Your task to perform on an android device: change alarm snooze length Image 0: 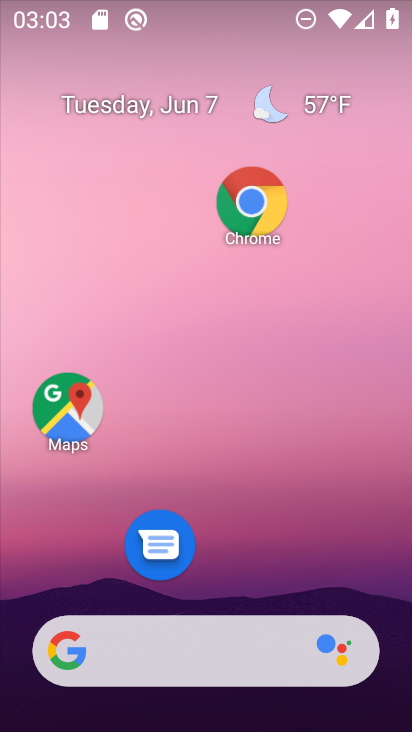
Step 0: drag from (271, 551) to (292, 267)
Your task to perform on an android device: change alarm snooze length Image 1: 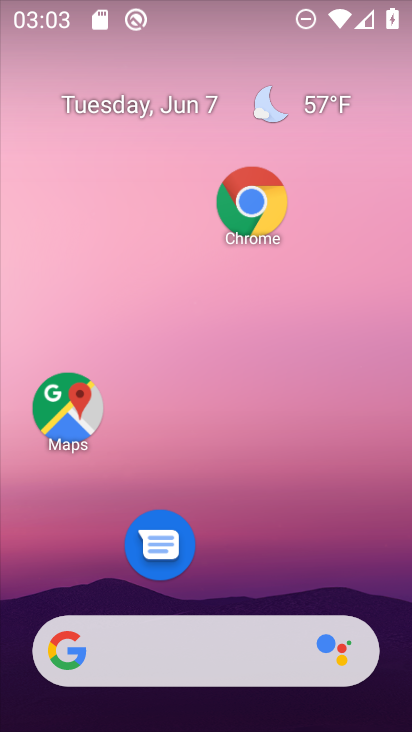
Step 1: drag from (244, 595) to (222, 220)
Your task to perform on an android device: change alarm snooze length Image 2: 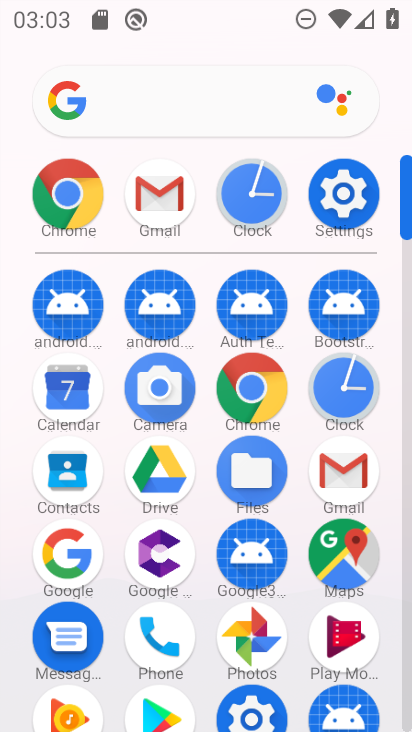
Step 2: click (354, 384)
Your task to perform on an android device: change alarm snooze length Image 3: 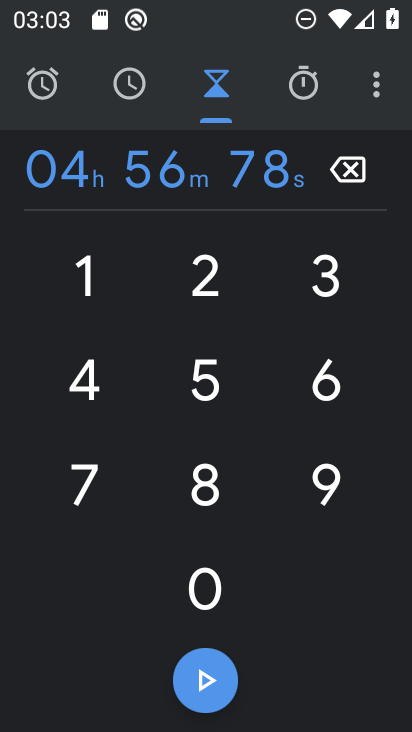
Step 3: click (367, 106)
Your task to perform on an android device: change alarm snooze length Image 4: 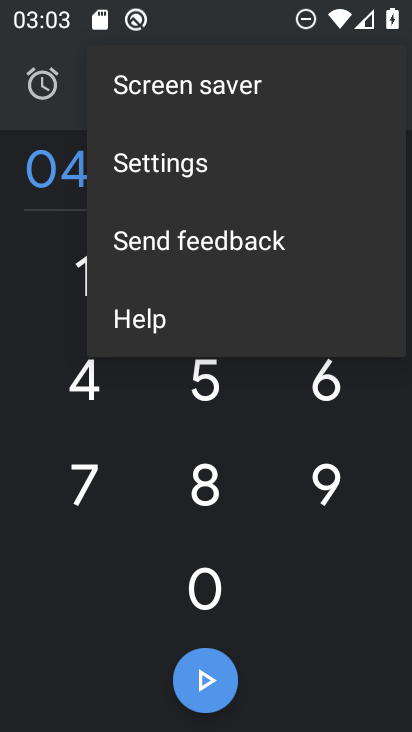
Step 4: click (145, 177)
Your task to perform on an android device: change alarm snooze length Image 5: 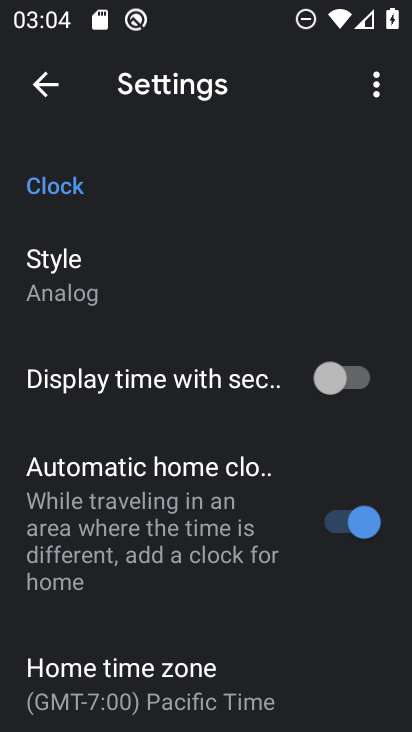
Step 5: drag from (158, 633) to (230, 207)
Your task to perform on an android device: change alarm snooze length Image 6: 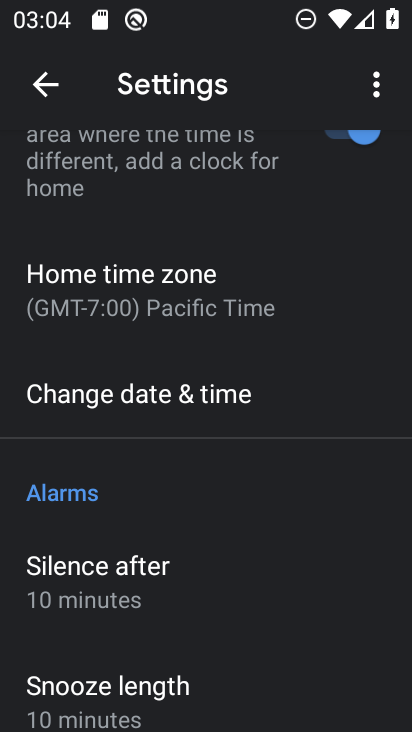
Step 6: click (138, 698)
Your task to perform on an android device: change alarm snooze length Image 7: 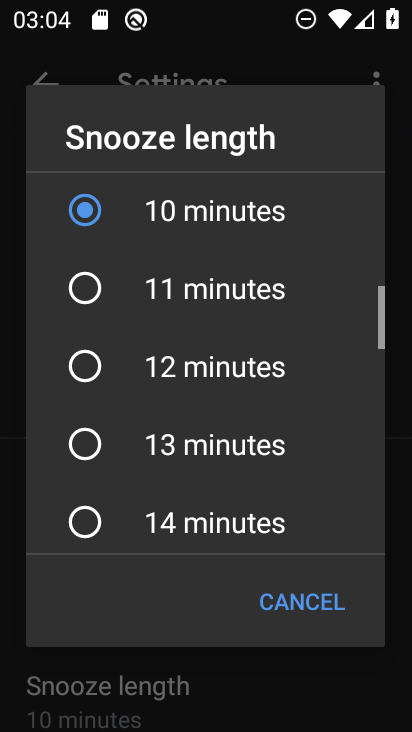
Step 7: click (156, 448)
Your task to perform on an android device: change alarm snooze length Image 8: 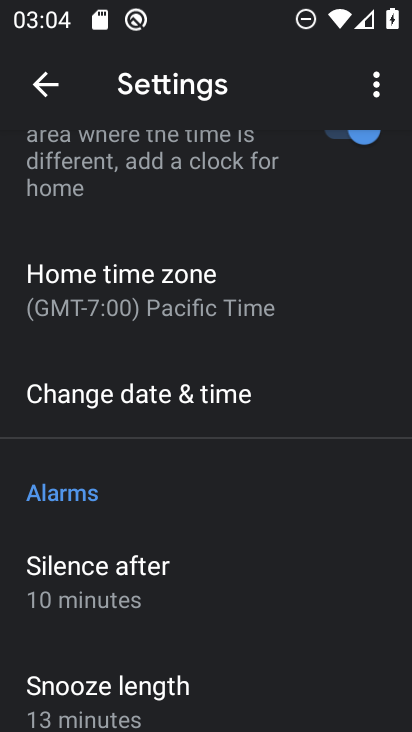
Step 8: task complete